Your task to perform on an android device: search for starred emails in the gmail app Image 0: 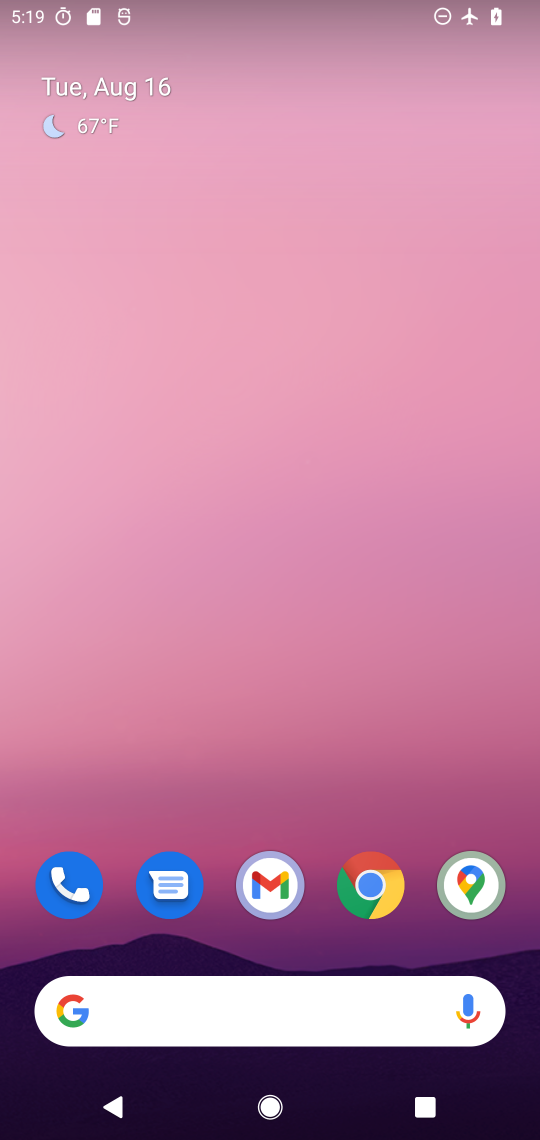
Step 0: drag from (261, 781) to (149, 412)
Your task to perform on an android device: search for starred emails in the gmail app Image 1: 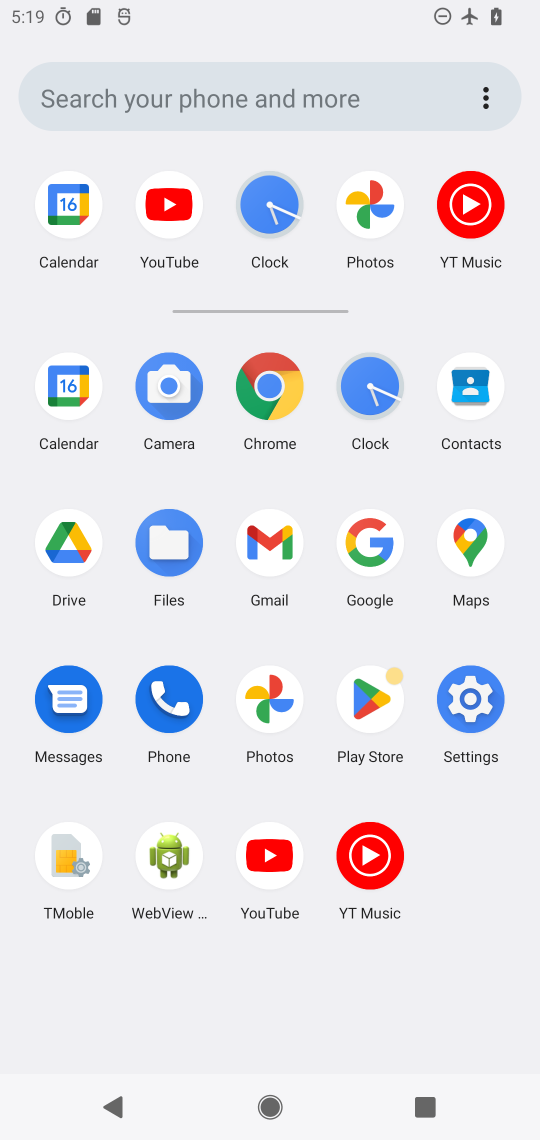
Step 1: click (287, 527)
Your task to perform on an android device: search for starred emails in the gmail app Image 2: 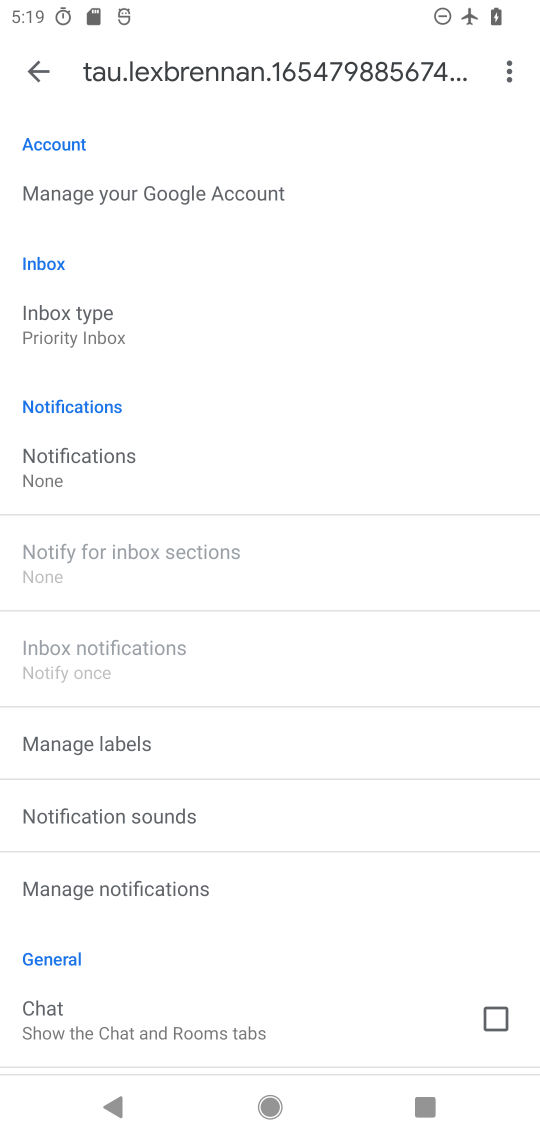
Step 2: click (52, 76)
Your task to perform on an android device: search for starred emails in the gmail app Image 3: 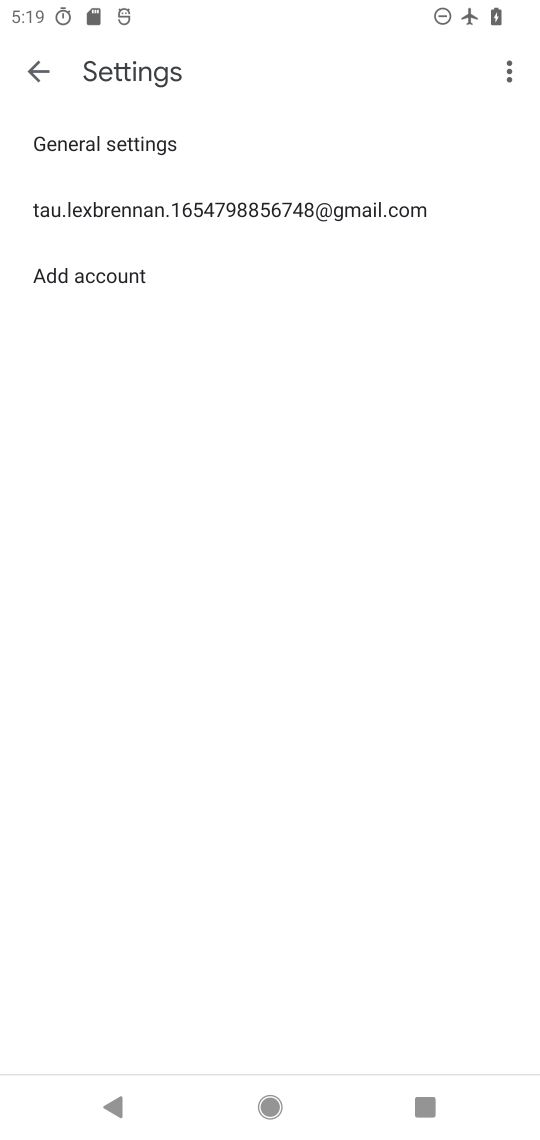
Step 3: click (169, 207)
Your task to perform on an android device: search for starred emails in the gmail app Image 4: 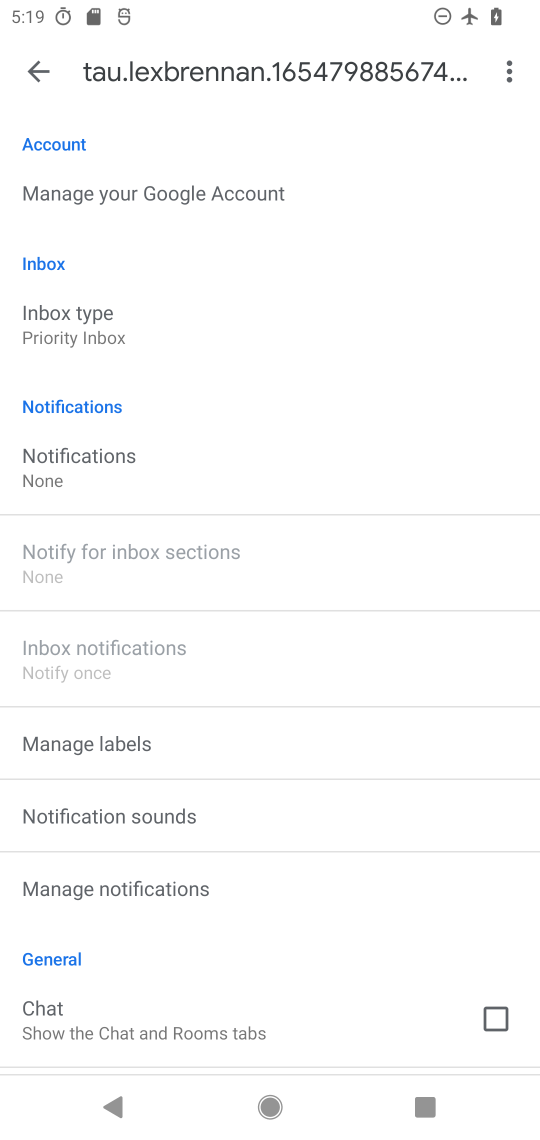
Step 4: click (58, 56)
Your task to perform on an android device: search for starred emails in the gmail app Image 5: 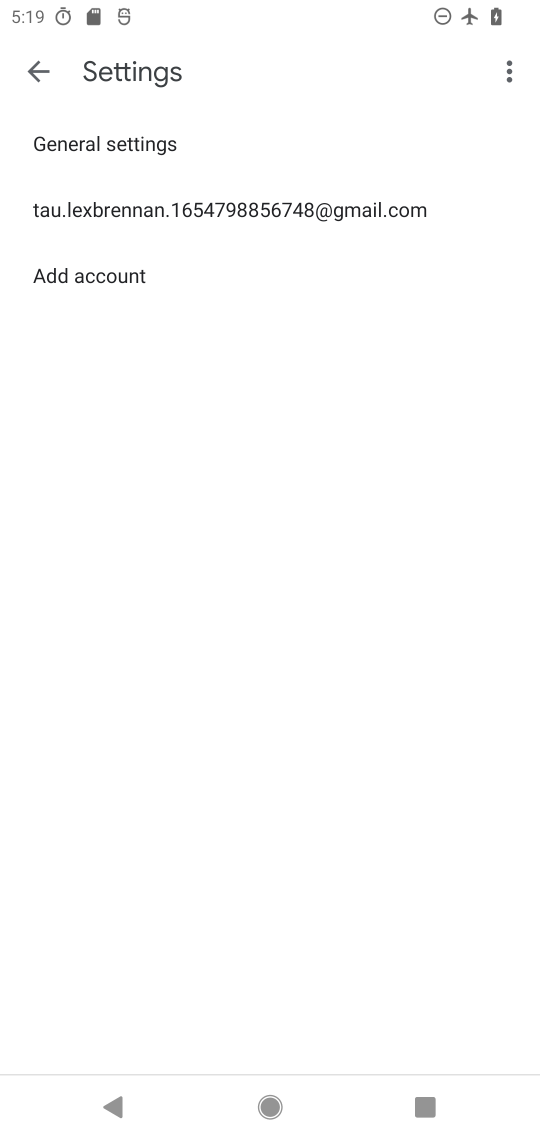
Step 5: click (19, 62)
Your task to perform on an android device: search for starred emails in the gmail app Image 6: 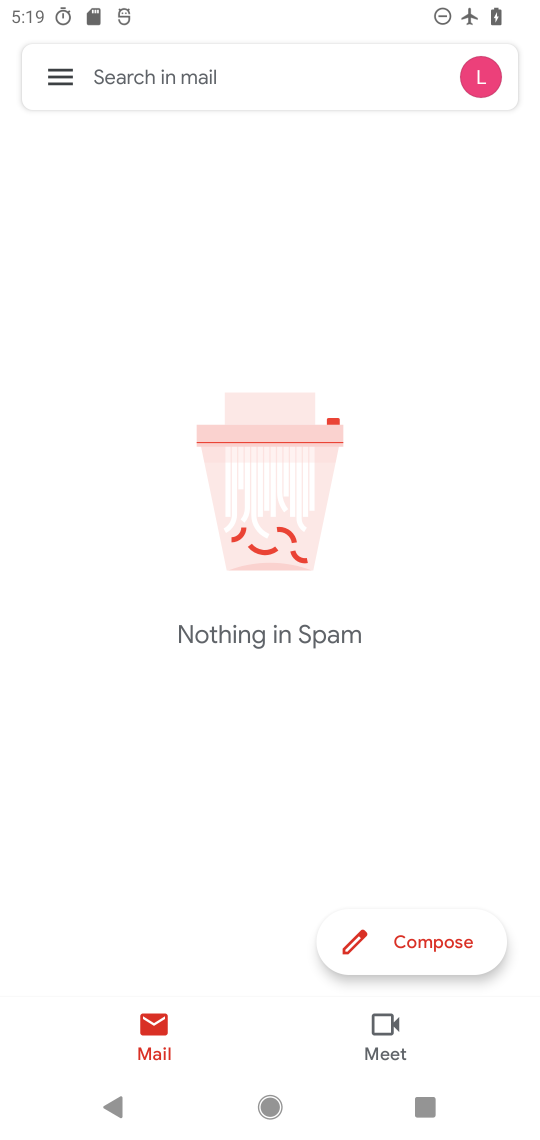
Step 6: click (64, 74)
Your task to perform on an android device: search for starred emails in the gmail app Image 7: 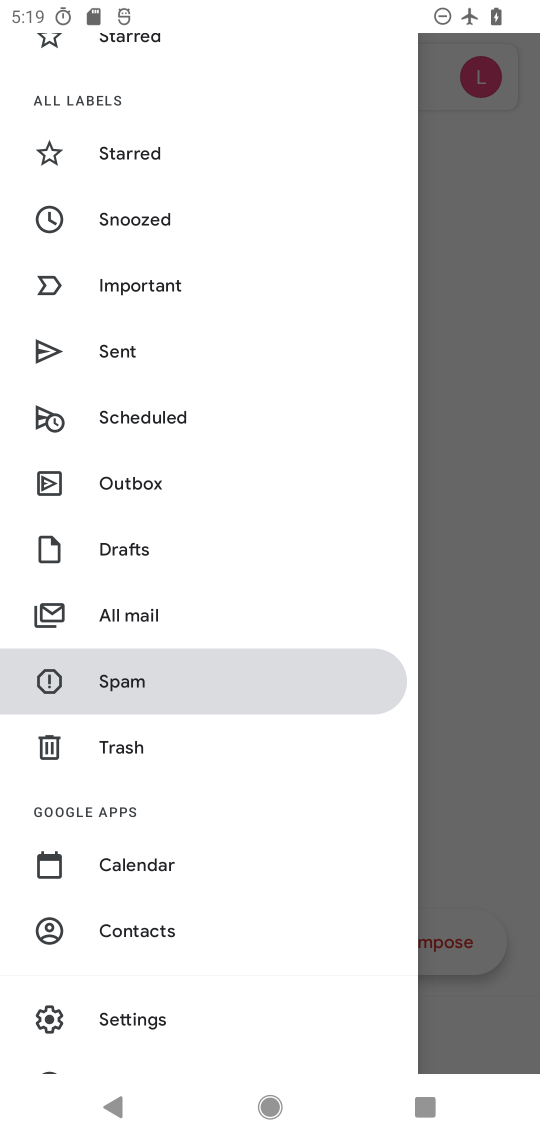
Step 7: click (172, 147)
Your task to perform on an android device: search for starred emails in the gmail app Image 8: 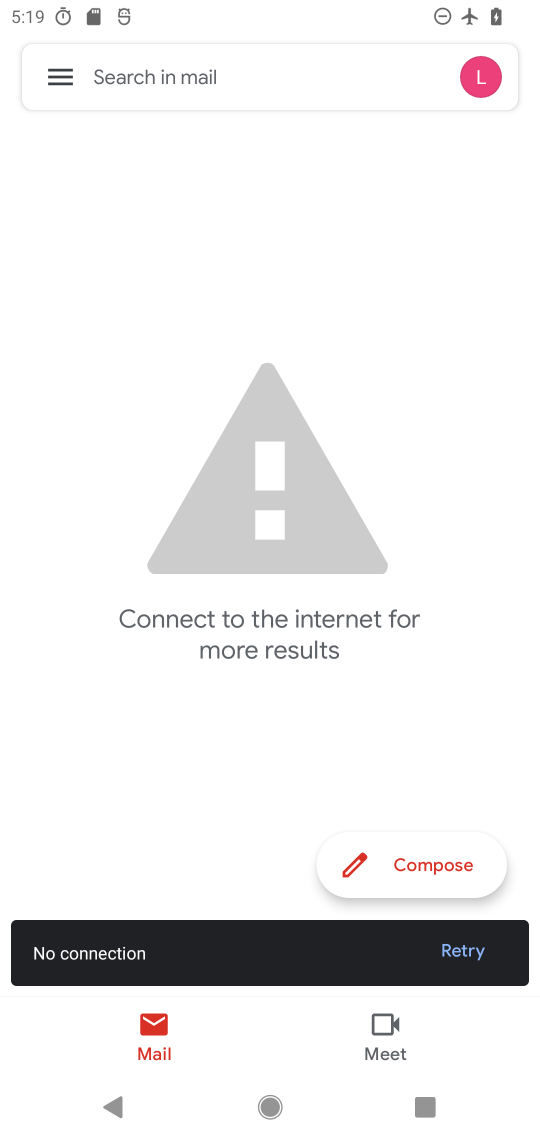
Step 8: task complete